Your task to perform on an android device: turn on bluetooth scan Image 0: 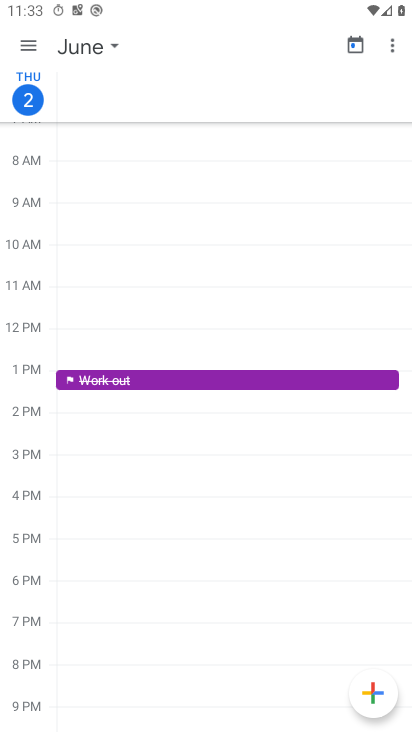
Step 0: press home button
Your task to perform on an android device: turn on bluetooth scan Image 1: 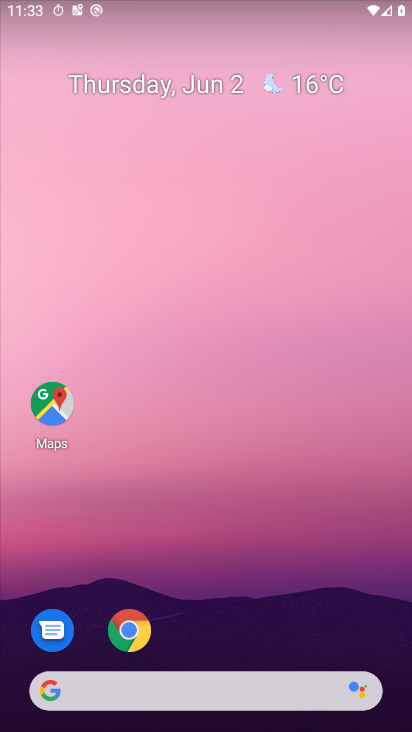
Step 1: drag from (212, 646) to (273, 285)
Your task to perform on an android device: turn on bluetooth scan Image 2: 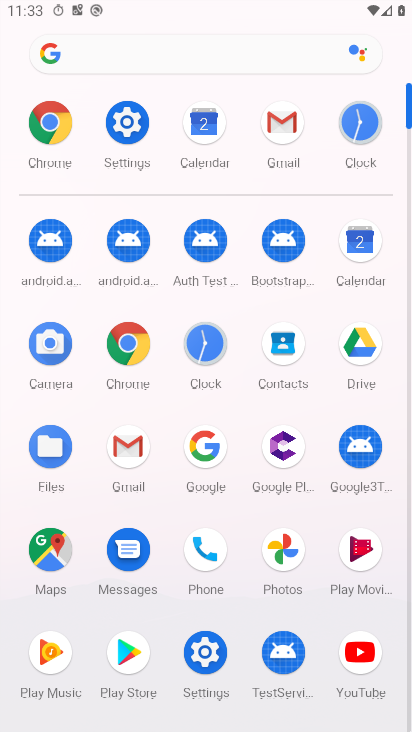
Step 2: click (127, 123)
Your task to perform on an android device: turn on bluetooth scan Image 3: 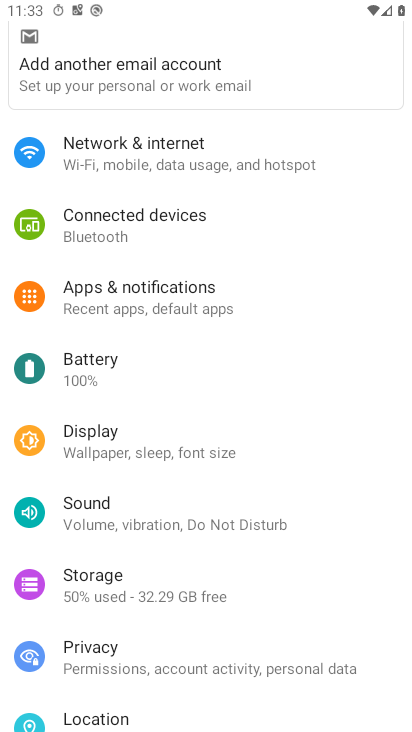
Step 3: drag from (154, 646) to (161, 587)
Your task to perform on an android device: turn on bluetooth scan Image 4: 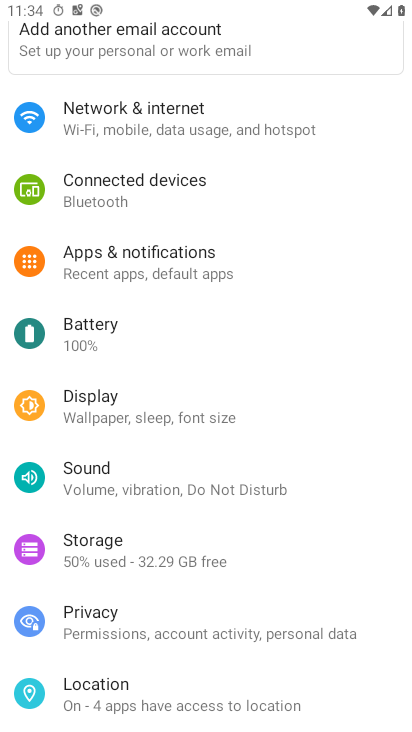
Step 4: click (104, 690)
Your task to perform on an android device: turn on bluetooth scan Image 5: 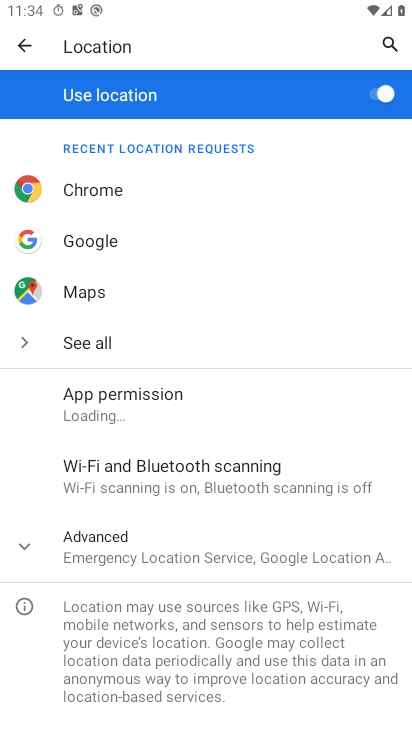
Step 5: click (193, 483)
Your task to perform on an android device: turn on bluetooth scan Image 6: 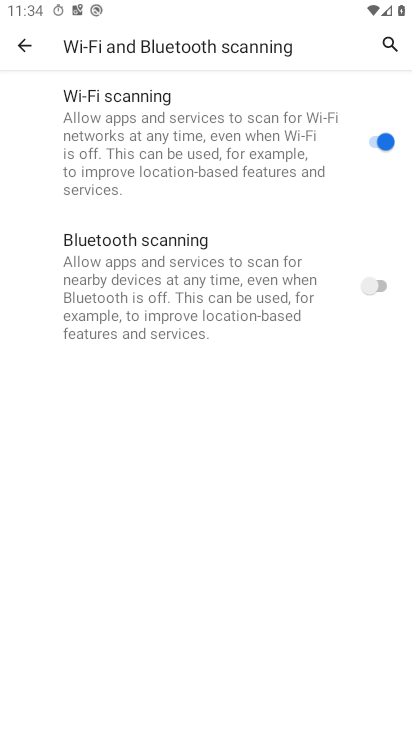
Step 6: click (351, 294)
Your task to perform on an android device: turn on bluetooth scan Image 7: 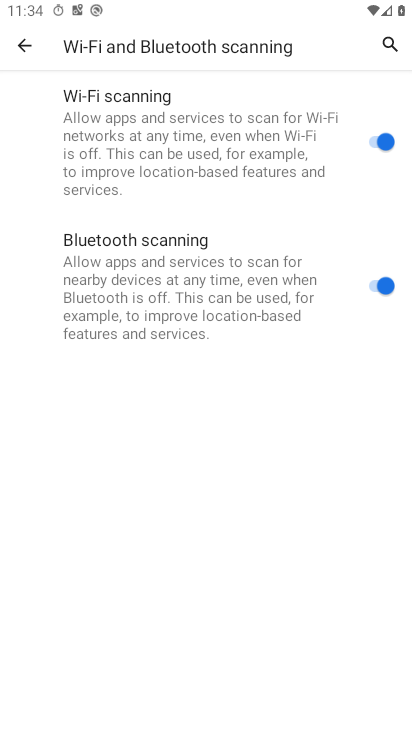
Step 7: task complete